Your task to perform on an android device: change the upload size in google photos Image 0: 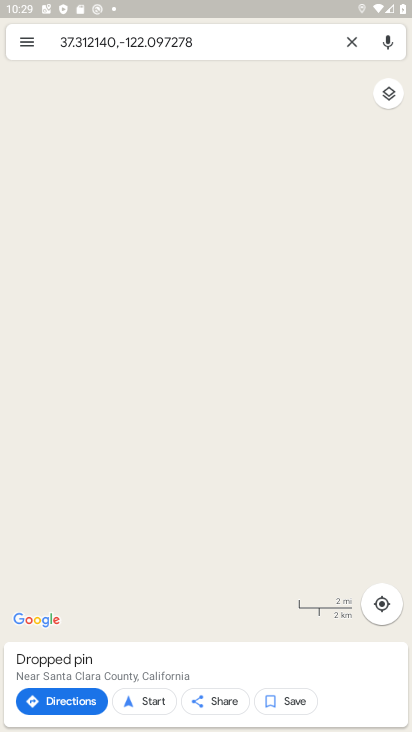
Step 0: press home button
Your task to perform on an android device: change the upload size in google photos Image 1: 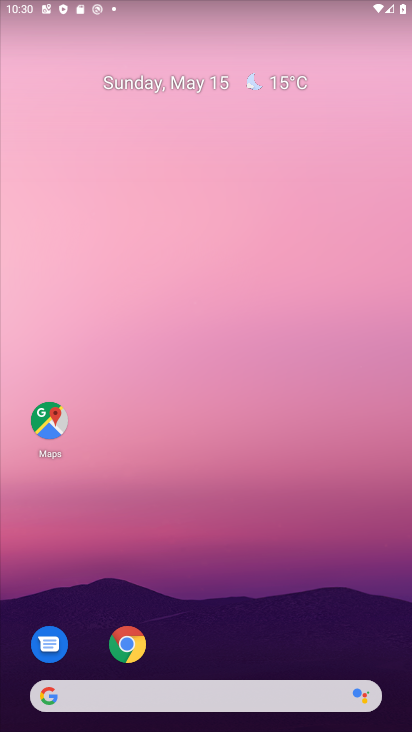
Step 1: drag from (202, 663) to (227, 210)
Your task to perform on an android device: change the upload size in google photos Image 2: 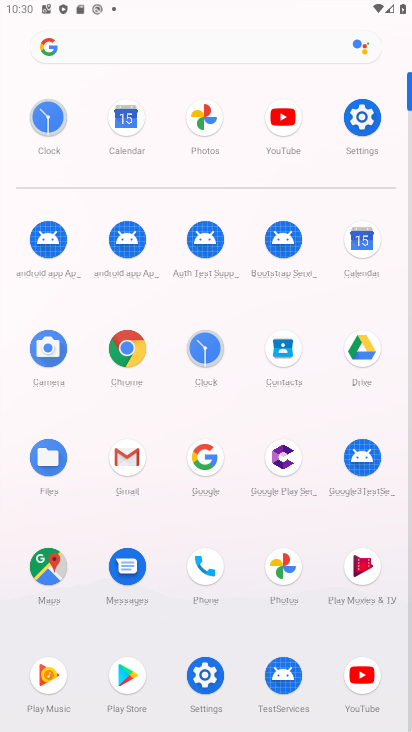
Step 2: click (212, 96)
Your task to perform on an android device: change the upload size in google photos Image 3: 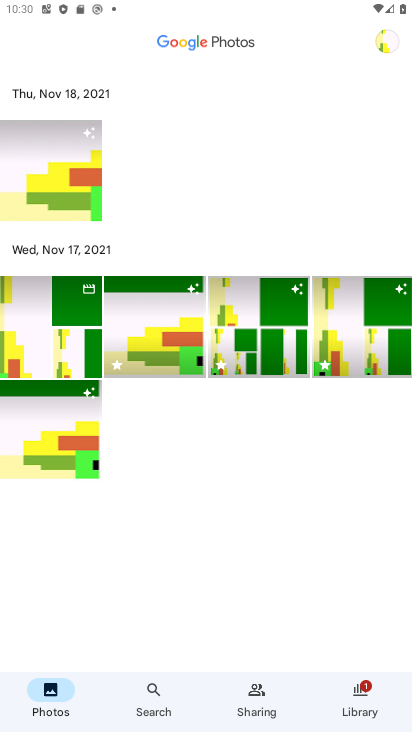
Step 3: click (391, 40)
Your task to perform on an android device: change the upload size in google photos Image 4: 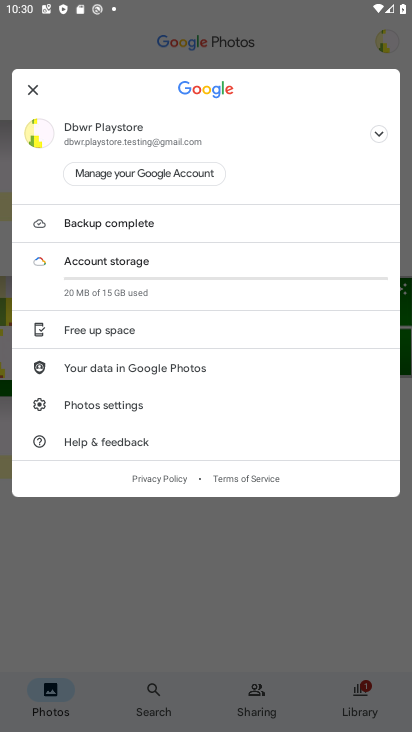
Step 4: click (97, 402)
Your task to perform on an android device: change the upload size in google photos Image 5: 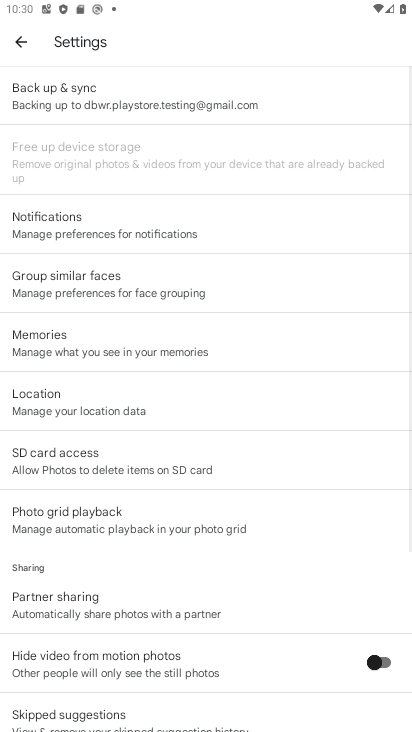
Step 5: click (49, 83)
Your task to perform on an android device: change the upload size in google photos Image 6: 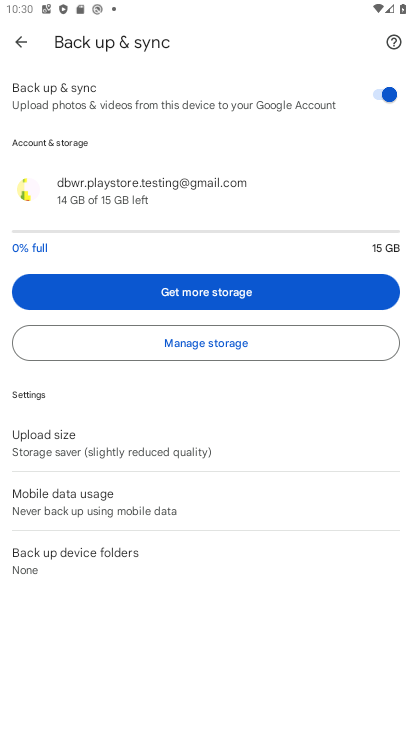
Step 6: click (58, 444)
Your task to perform on an android device: change the upload size in google photos Image 7: 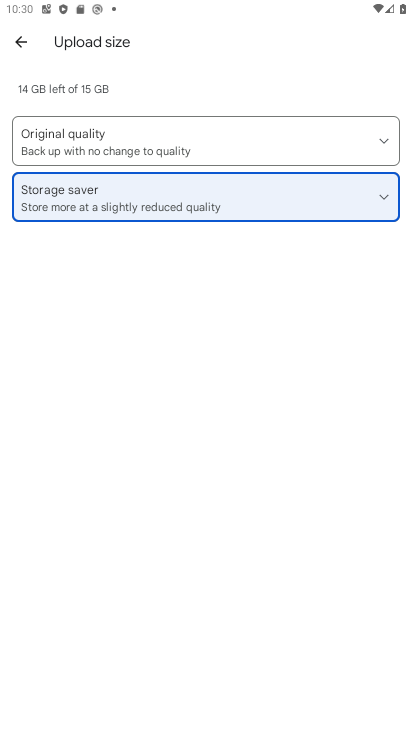
Step 7: click (114, 130)
Your task to perform on an android device: change the upload size in google photos Image 8: 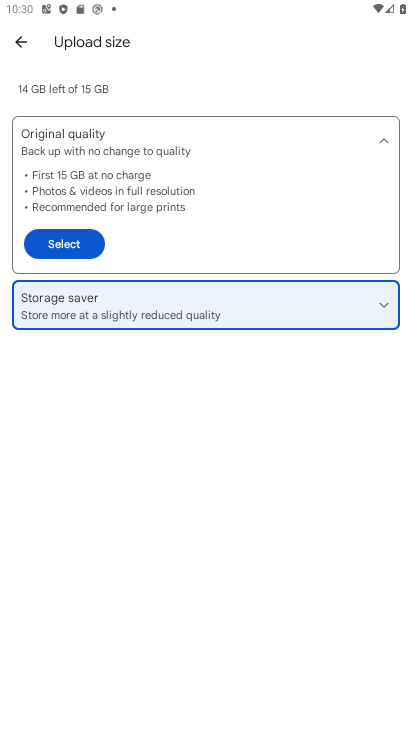
Step 8: click (58, 253)
Your task to perform on an android device: change the upload size in google photos Image 9: 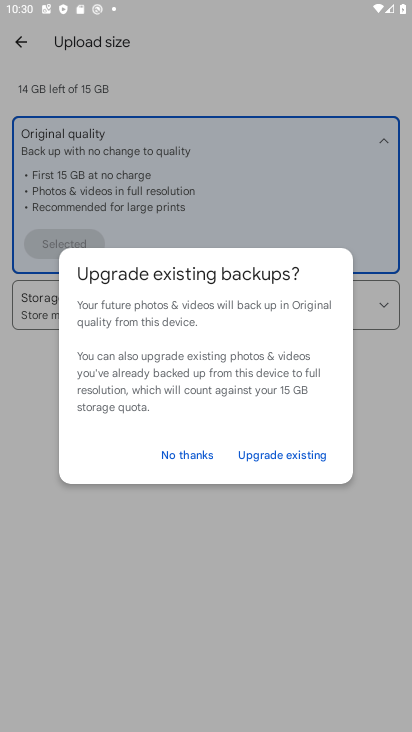
Step 9: click (271, 457)
Your task to perform on an android device: change the upload size in google photos Image 10: 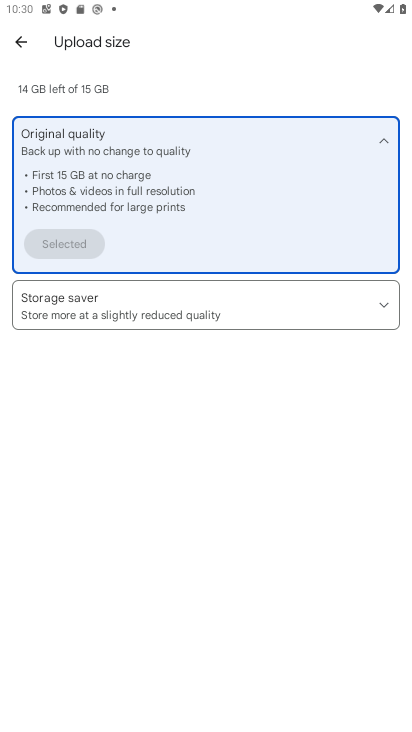
Step 10: task complete